Your task to perform on an android device: open sync settings in chrome Image 0: 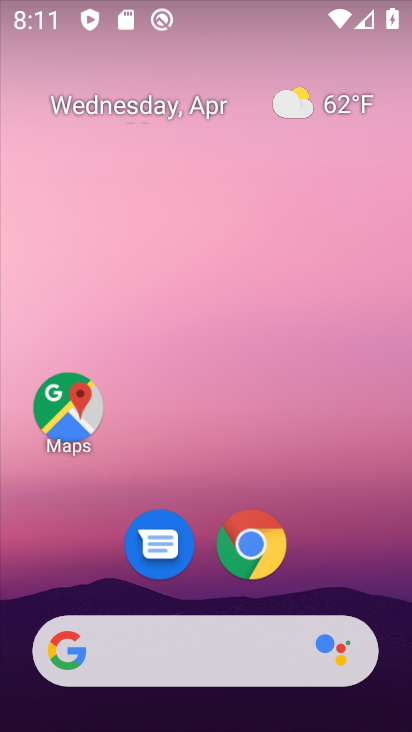
Step 0: click (255, 551)
Your task to perform on an android device: open sync settings in chrome Image 1: 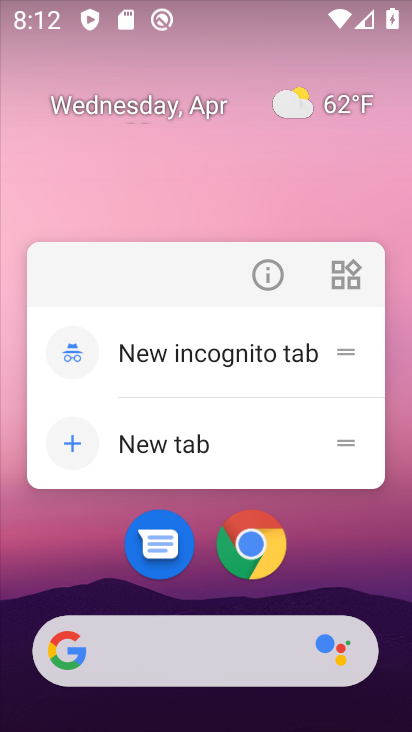
Step 1: click (255, 551)
Your task to perform on an android device: open sync settings in chrome Image 2: 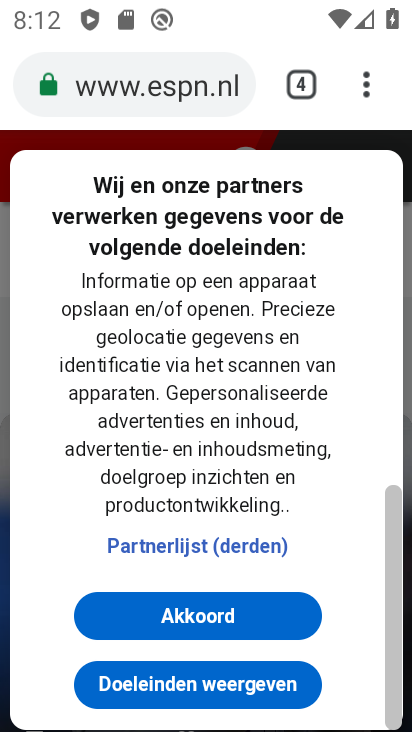
Step 2: drag from (368, 81) to (194, 577)
Your task to perform on an android device: open sync settings in chrome Image 3: 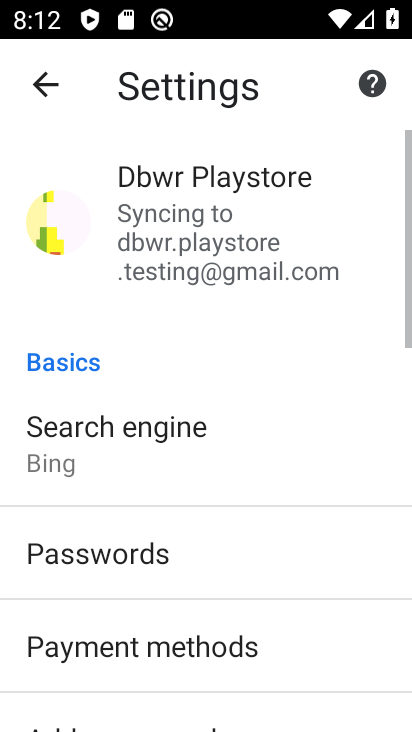
Step 3: drag from (319, 540) to (272, 264)
Your task to perform on an android device: open sync settings in chrome Image 4: 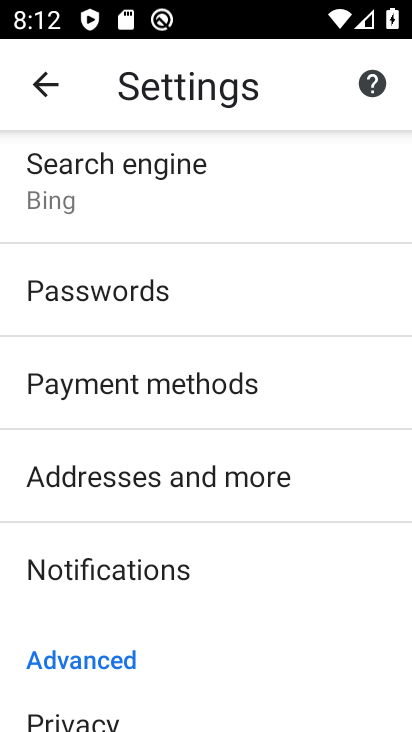
Step 4: drag from (286, 629) to (292, 203)
Your task to perform on an android device: open sync settings in chrome Image 5: 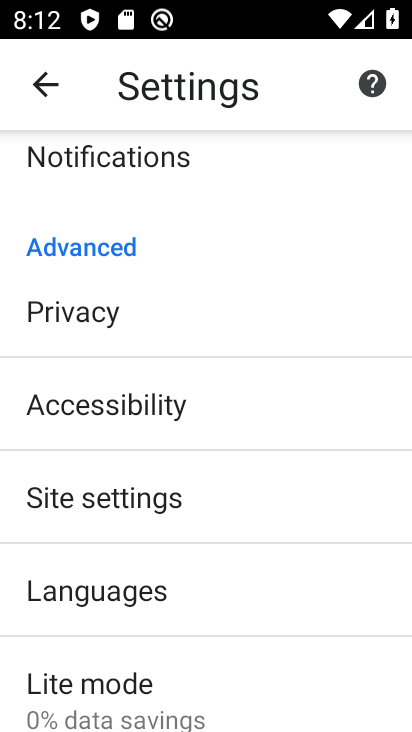
Step 5: click (94, 490)
Your task to perform on an android device: open sync settings in chrome Image 6: 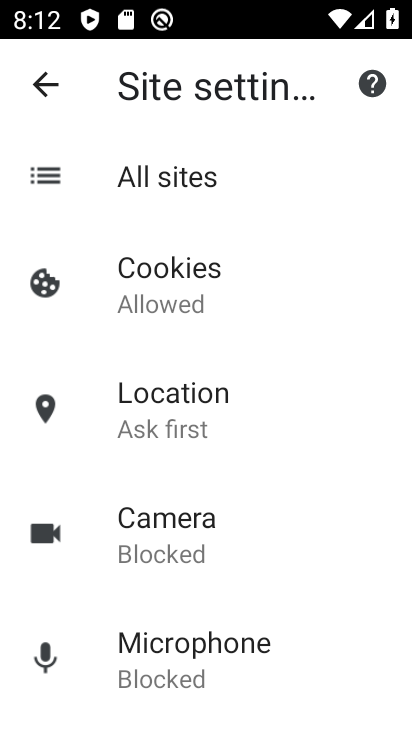
Step 6: drag from (324, 640) to (270, 247)
Your task to perform on an android device: open sync settings in chrome Image 7: 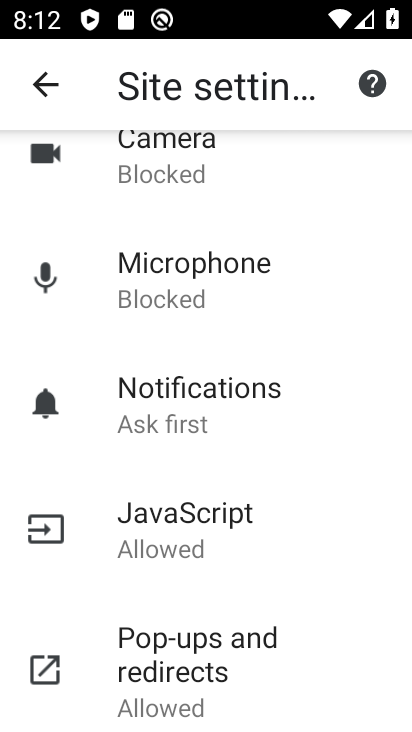
Step 7: drag from (330, 612) to (312, 302)
Your task to perform on an android device: open sync settings in chrome Image 8: 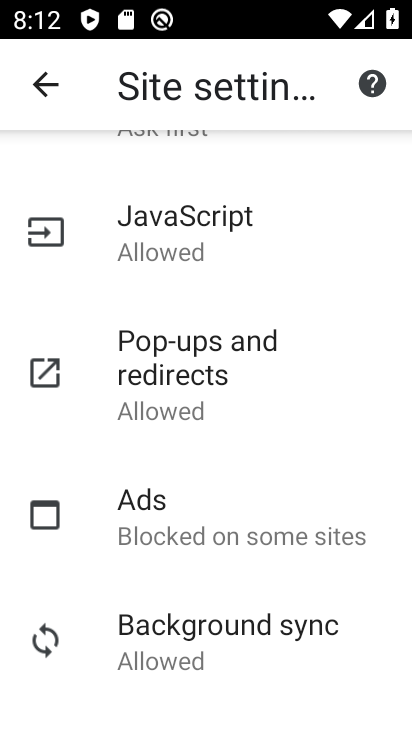
Step 8: click (156, 622)
Your task to perform on an android device: open sync settings in chrome Image 9: 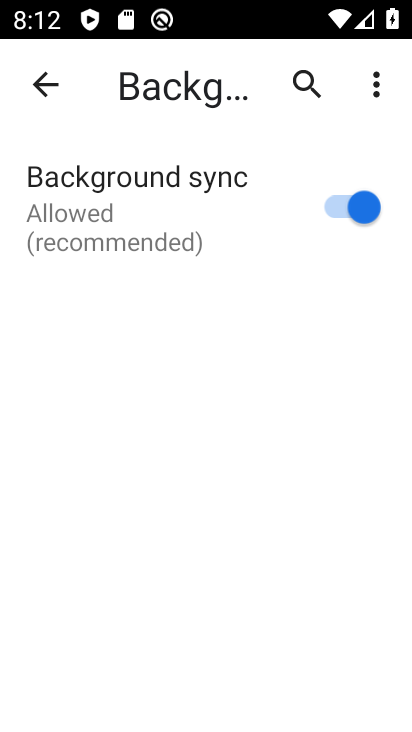
Step 9: task complete